Your task to perform on an android device: turn on priority inbox in the gmail app Image 0: 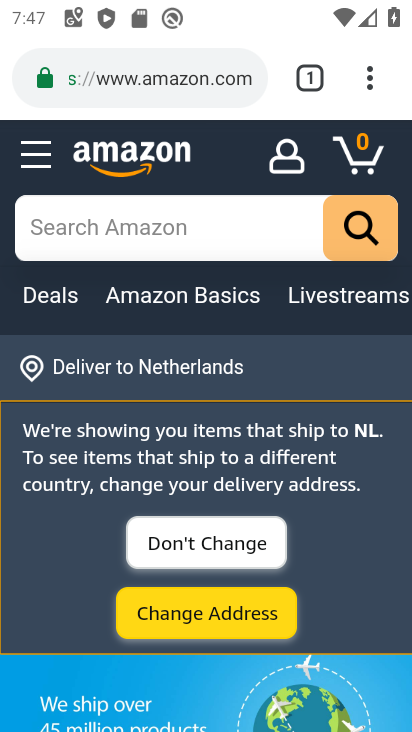
Step 0: press home button
Your task to perform on an android device: turn on priority inbox in the gmail app Image 1: 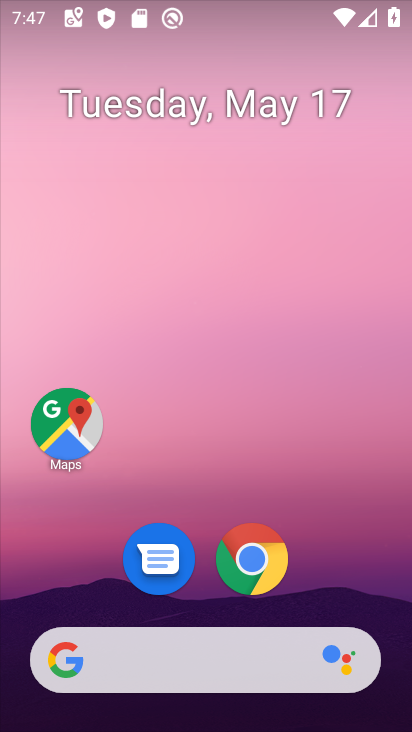
Step 1: drag from (153, 714) to (176, 258)
Your task to perform on an android device: turn on priority inbox in the gmail app Image 2: 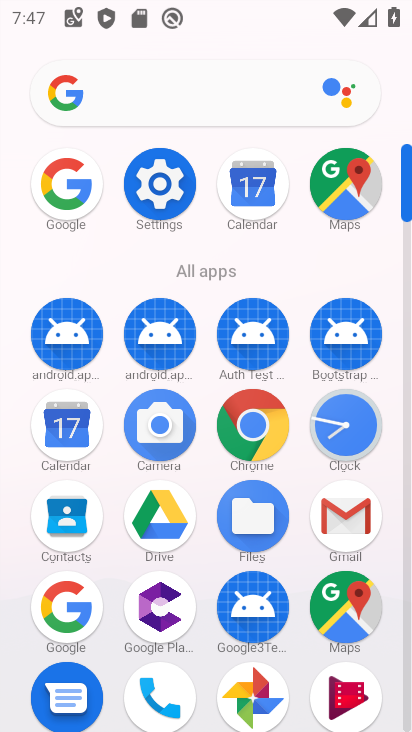
Step 2: drag from (273, 572) to (240, 325)
Your task to perform on an android device: turn on priority inbox in the gmail app Image 3: 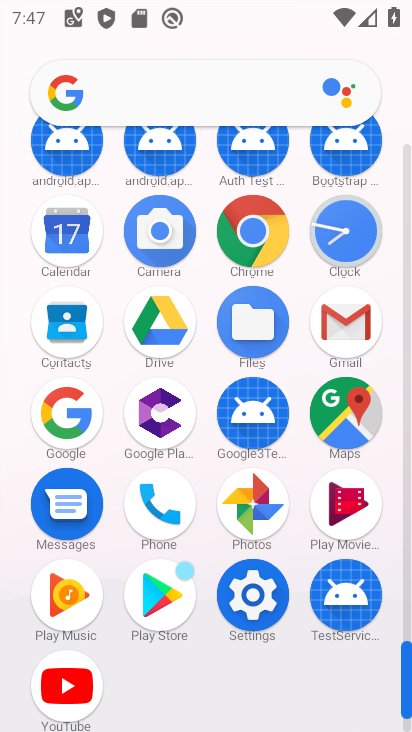
Step 3: click (354, 323)
Your task to perform on an android device: turn on priority inbox in the gmail app Image 4: 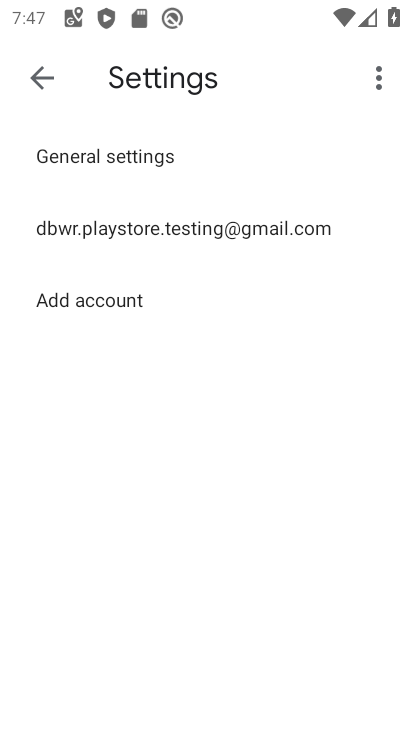
Step 4: click (171, 231)
Your task to perform on an android device: turn on priority inbox in the gmail app Image 5: 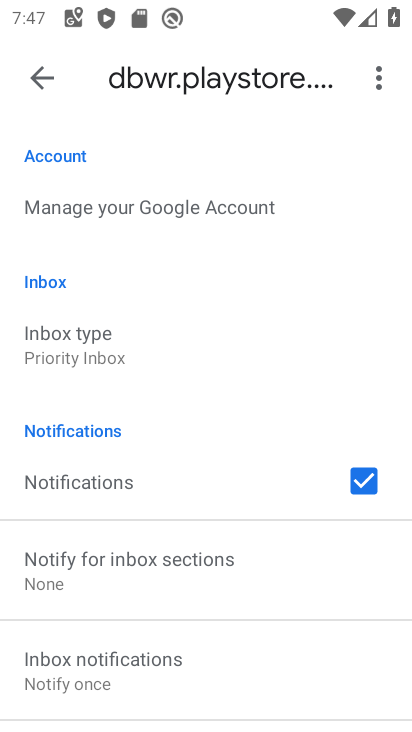
Step 5: task complete